Your task to perform on an android device: toggle pop-ups in chrome Image 0: 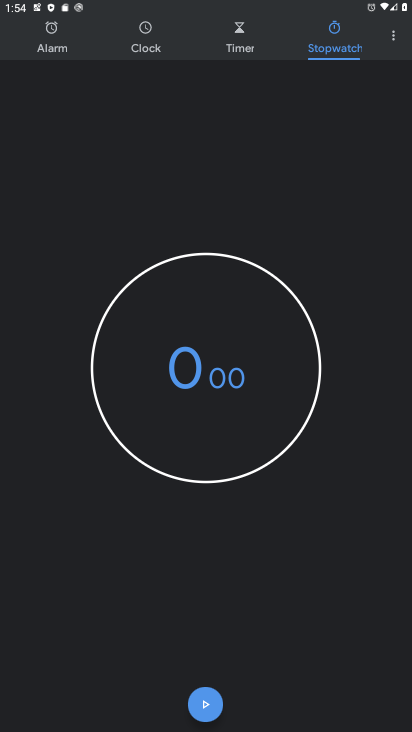
Step 0: press home button
Your task to perform on an android device: toggle pop-ups in chrome Image 1: 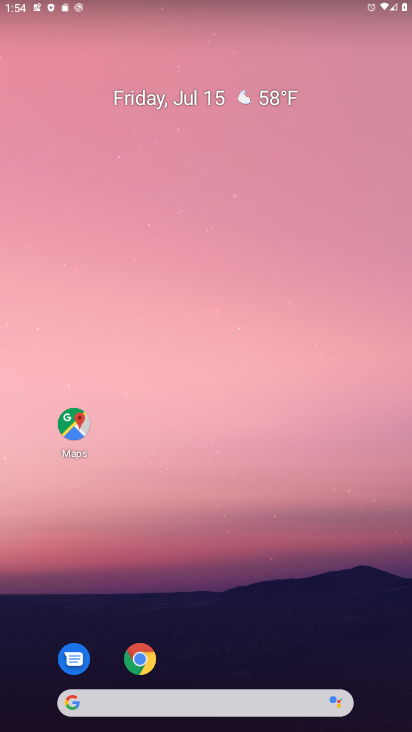
Step 1: click (144, 660)
Your task to perform on an android device: toggle pop-ups in chrome Image 2: 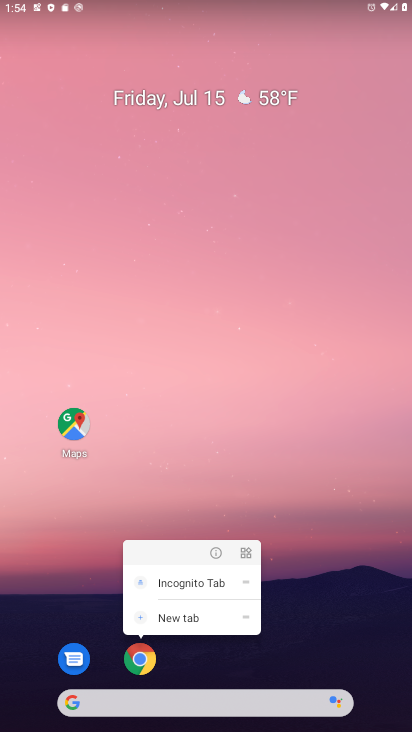
Step 2: click (138, 657)
Your task to perform on an android device: toggle pop-ups in chrome Image 3: 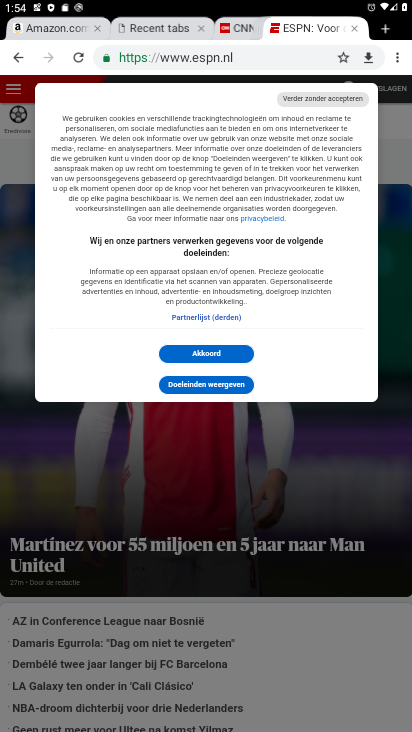
Step 3: click (395, 61)
Your task to perform on an android device: toggle pop-ups in chrome Image 4: 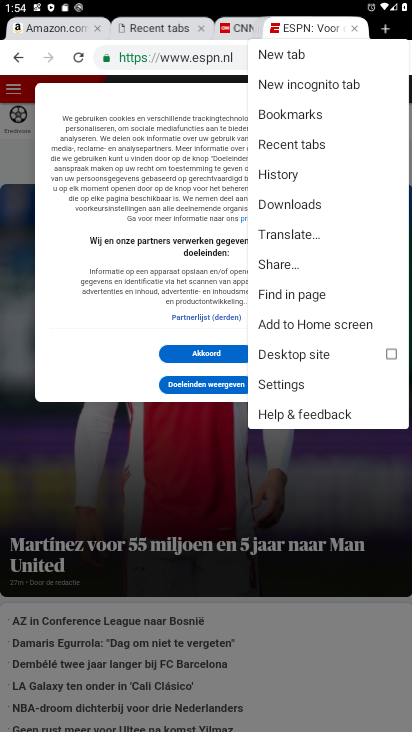
Step 4: click (286, 380)
Your task to perform on an android device: toggle pop-ups in chrome Image 5: 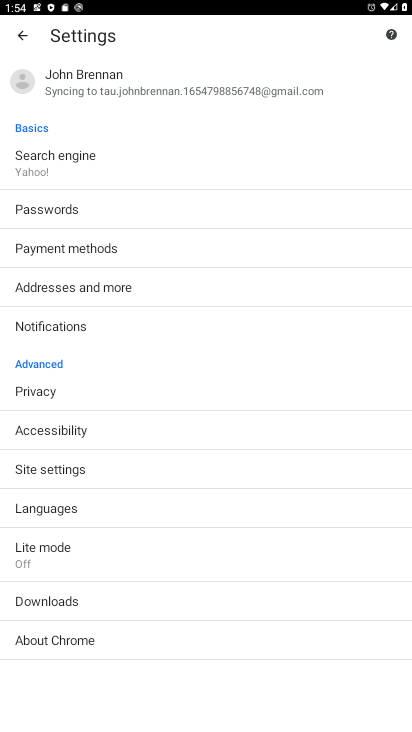
Step 5: click (60, 461)
Your task to perform on an android device: toggle pop-ups in chrome Image 6: 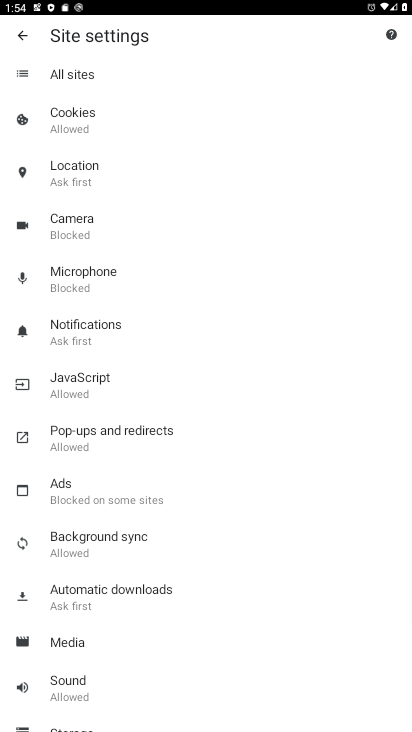
Step 6: click (88, 431)
Your task to perform on an android device: toggle pop-ups in chrome Image 7: 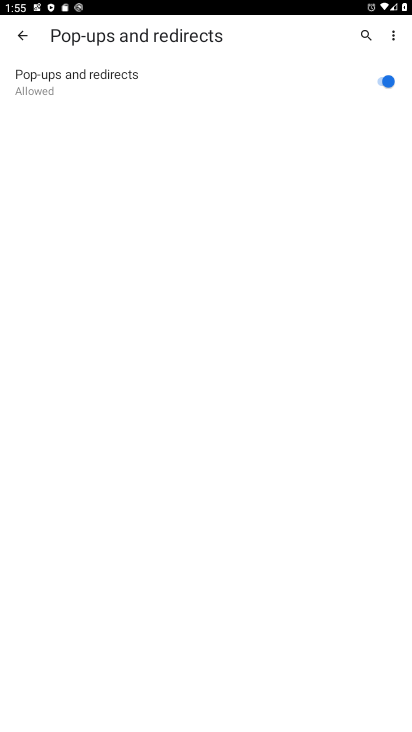
Step 7: task complete